Your task to perform on an android device: Go to accessibility settings Image 0: 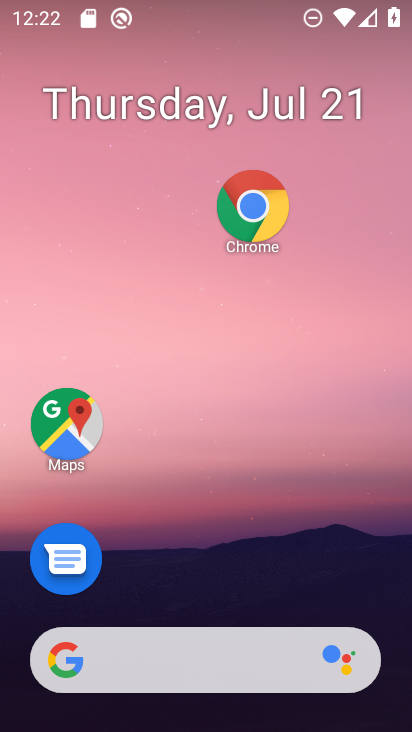
Step 0: drag from (159, 629) to (146, 107)
Your task to perform on an android device: Go to accessibility settings Image 1: 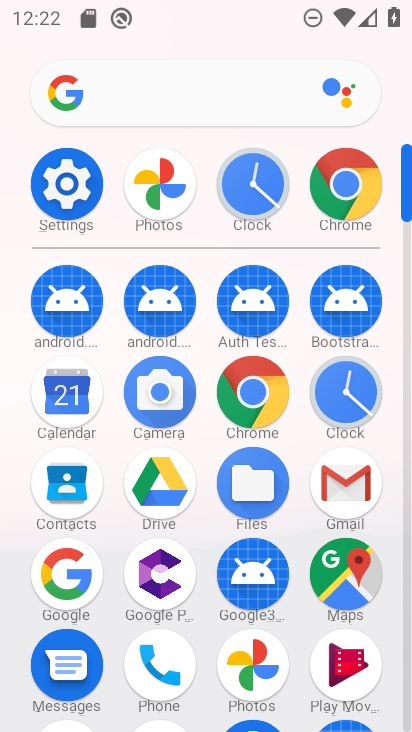
Step 1: click (85, 215)
Your task to perform on an android device: Go to accessibility settings Image 2: 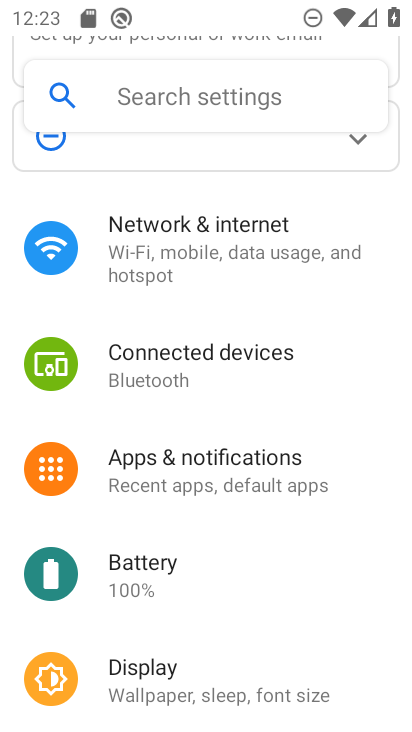
Step 2: drag from (154, 542) to (220, 198)
Your task to perform on an android device: Go to accessibility settings Image 3: 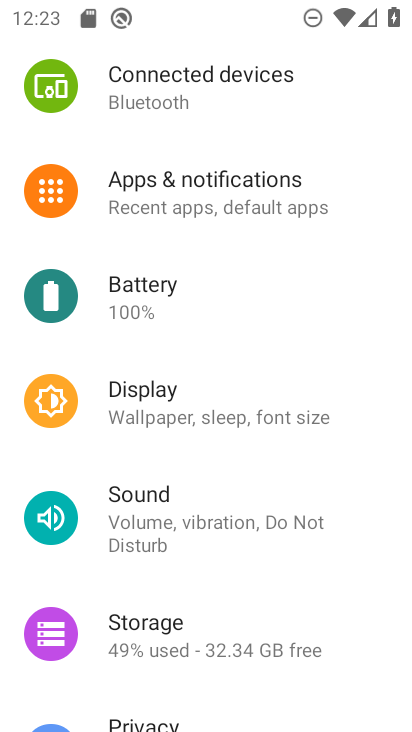
Step 3: drag from (216, 517) to (266, 115)
Your task to perform on an android device: Go to accessibility settings Image 4: 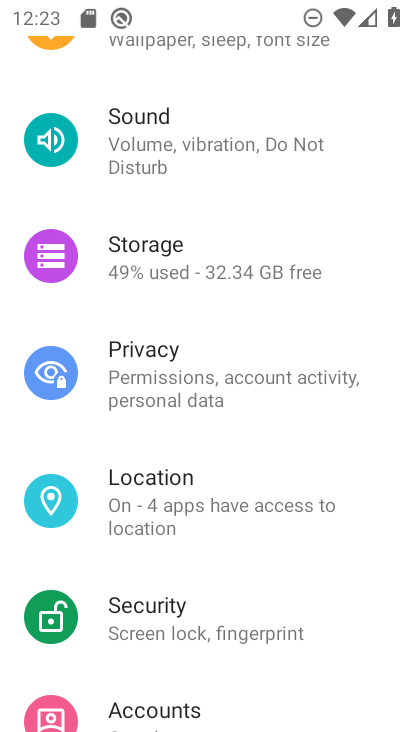
Step 4: drag from (245, 509) to (288, 234)
Your task to perform on an android device: Go to accessibility settings Image 5: 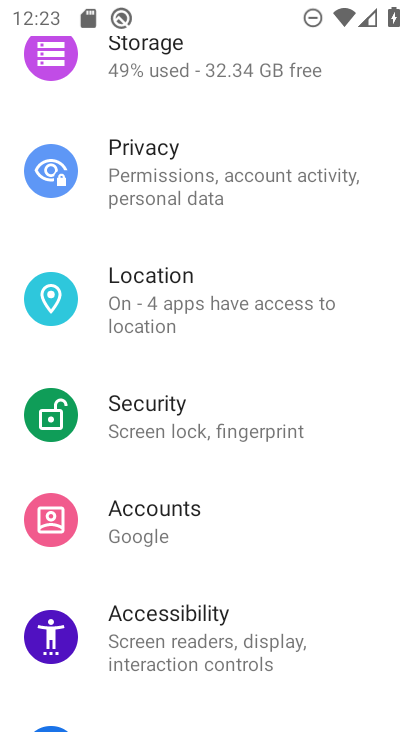
Step 5: click (199, 622)
Your task to perform on an android device: Go to accessibility settings Image 6: 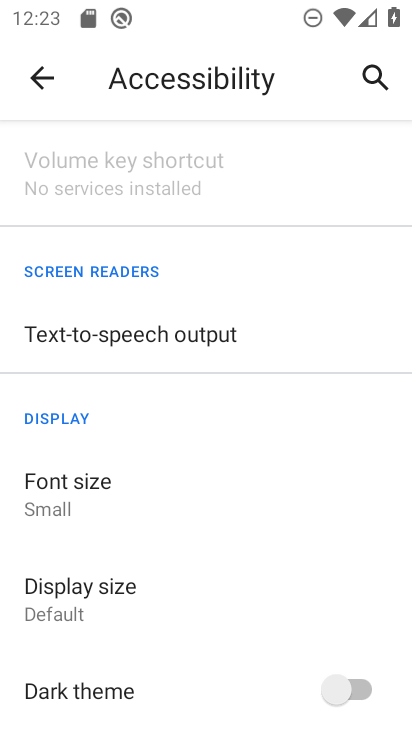
Step 6: task complete